Your task to perform on an android device: change text size in settings app Image 0: 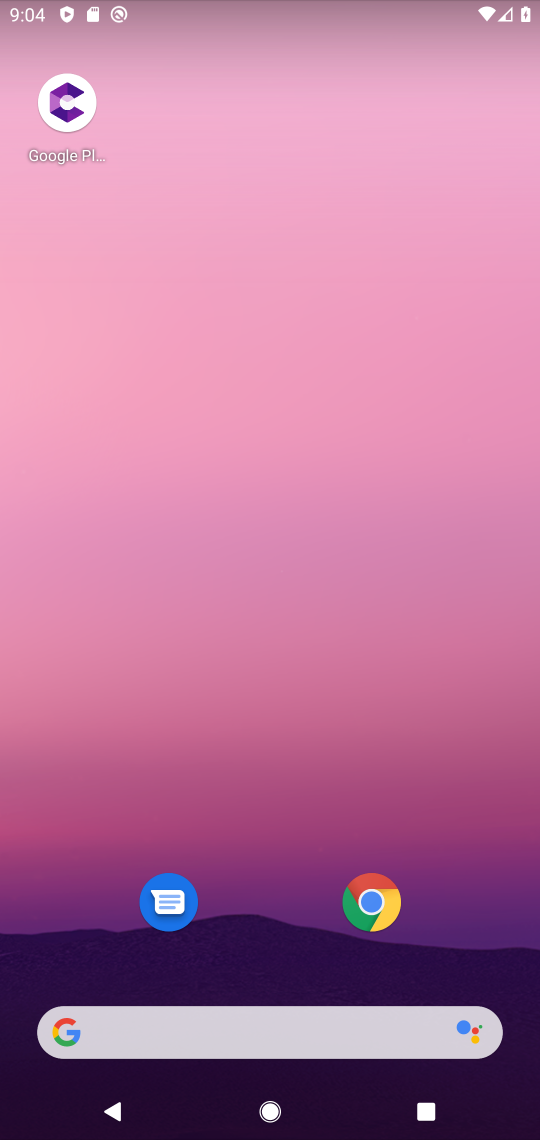
Step 0: drag from (254, 960) to (504, 790)
Your task to perform on an android device: change text size in settings app Image 1: 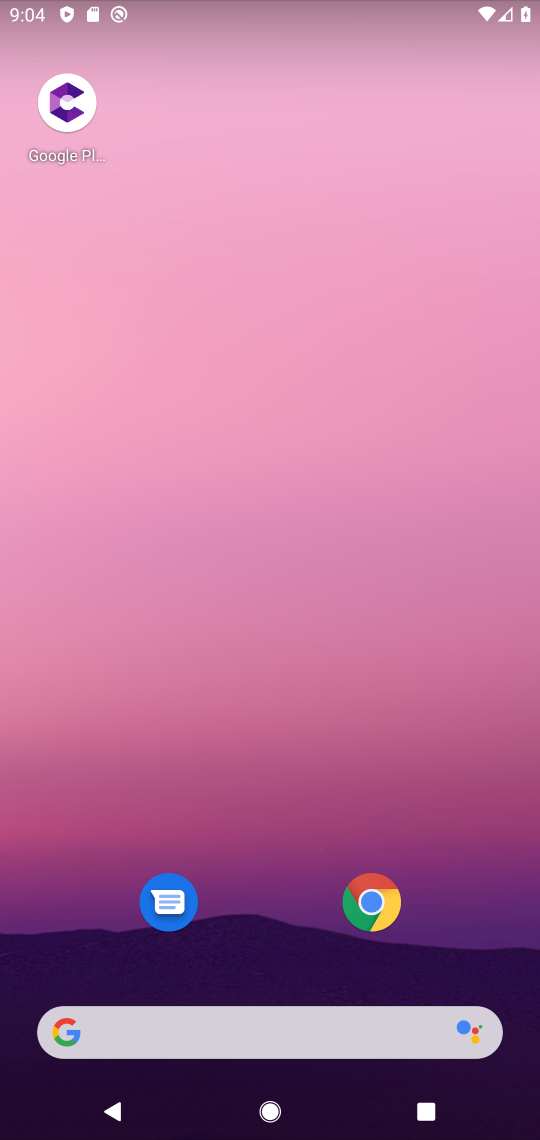
Step 1: drag from (279, 994) to (236, 198)
Your task to perform on an android device: change text size in settings app Image 2: 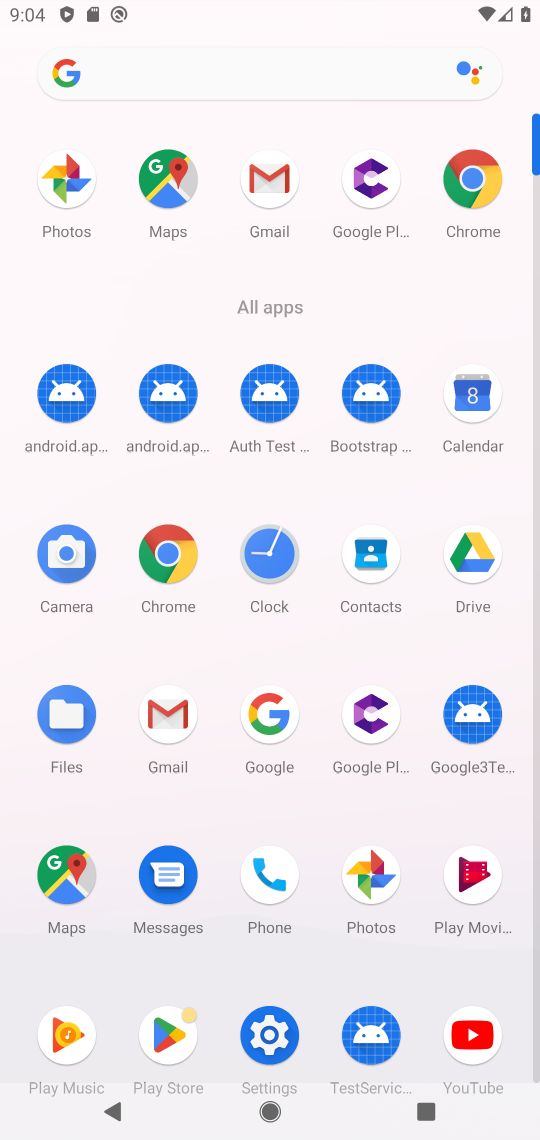
Step 2: click (252, 1038)
Your task to perform on an android device: change text size in settings app Image 3: 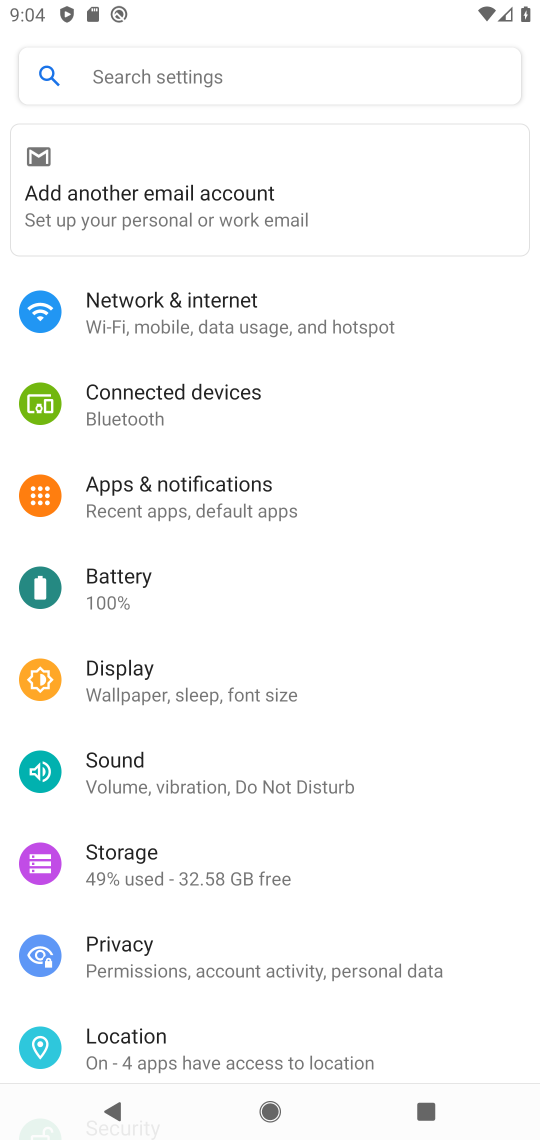
Step 3: click (124, 699)
Your task to perform on an android device: change text size in settings app Image 4: 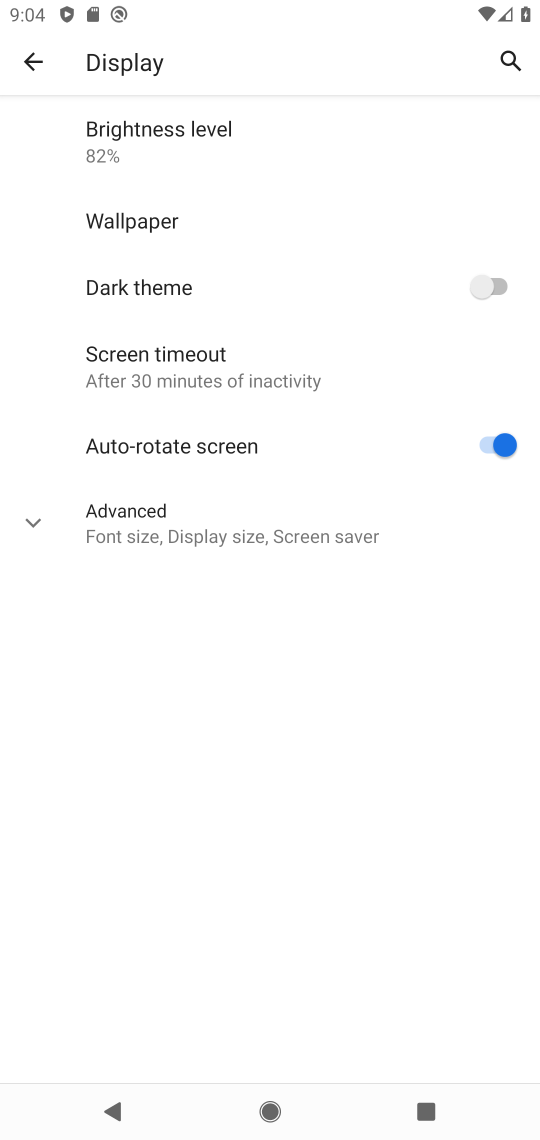
Step 4: click (135, 517)
Your task to perform on an android device: change text size in settings app Image 5: 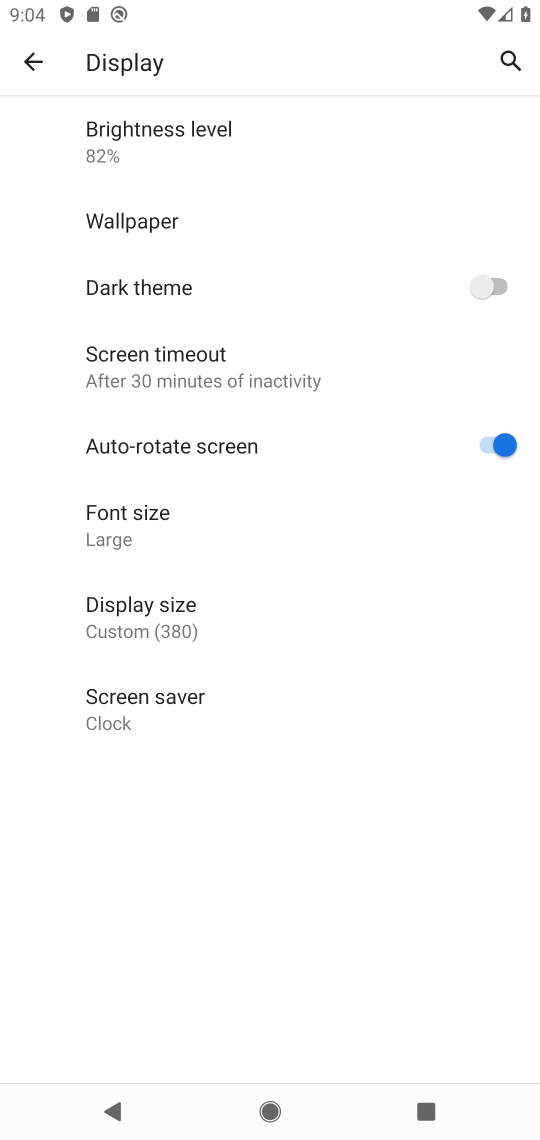
Step 5: click (122, 552)
Your task to perform on an android device: change text size in settings app Image 6: 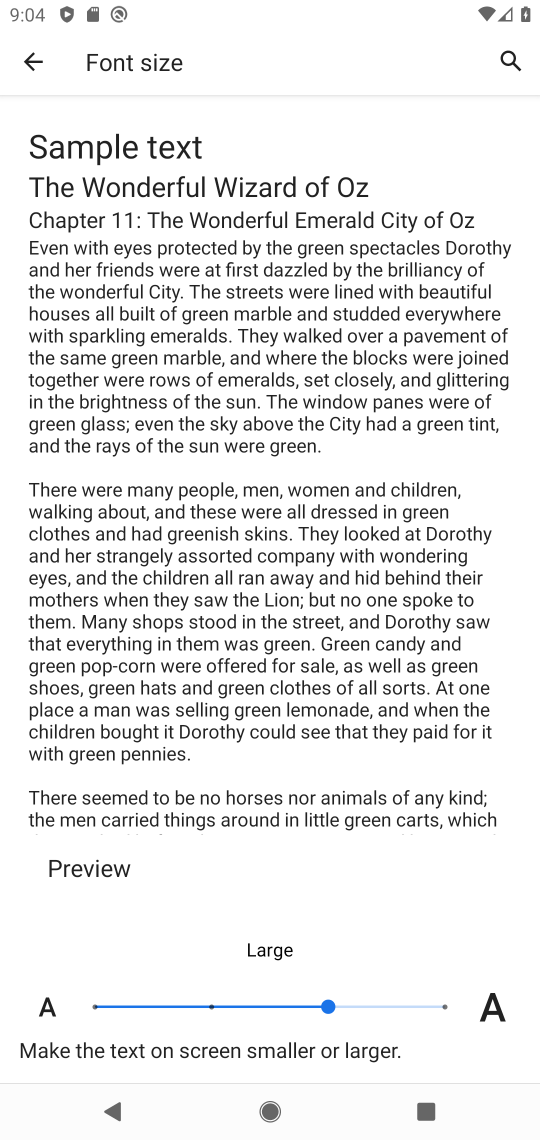
Step 6: click (212, 1000)
Your task to perform on an android device: change text size in settings app Image 7: 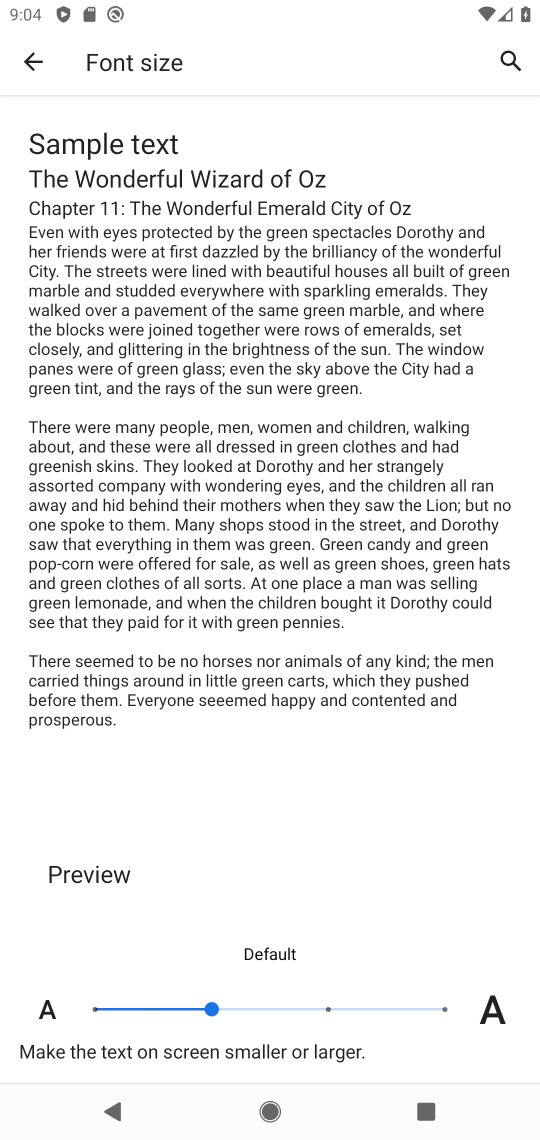
Step 7: task complete